Your task to perform on an android device: Go to Wikipedia Image 0: 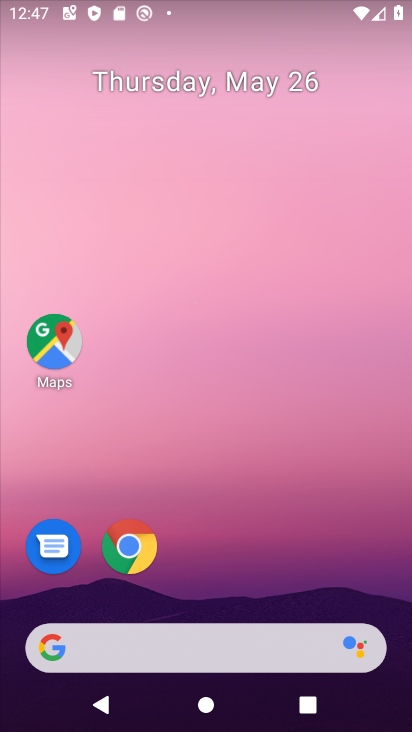
Step 0: click (113, 556)
Your task to perform on an android device: Go to Wikipedia Image 1: 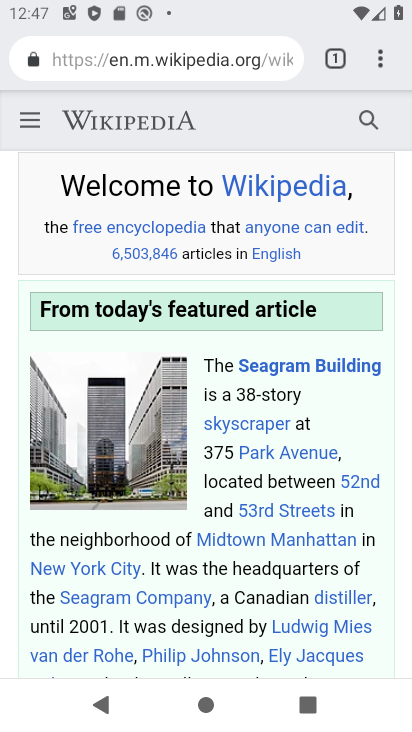
Step 1: task complete